Your task to perform on an android device: open app "Chime – Mobile Banking" Image 0: 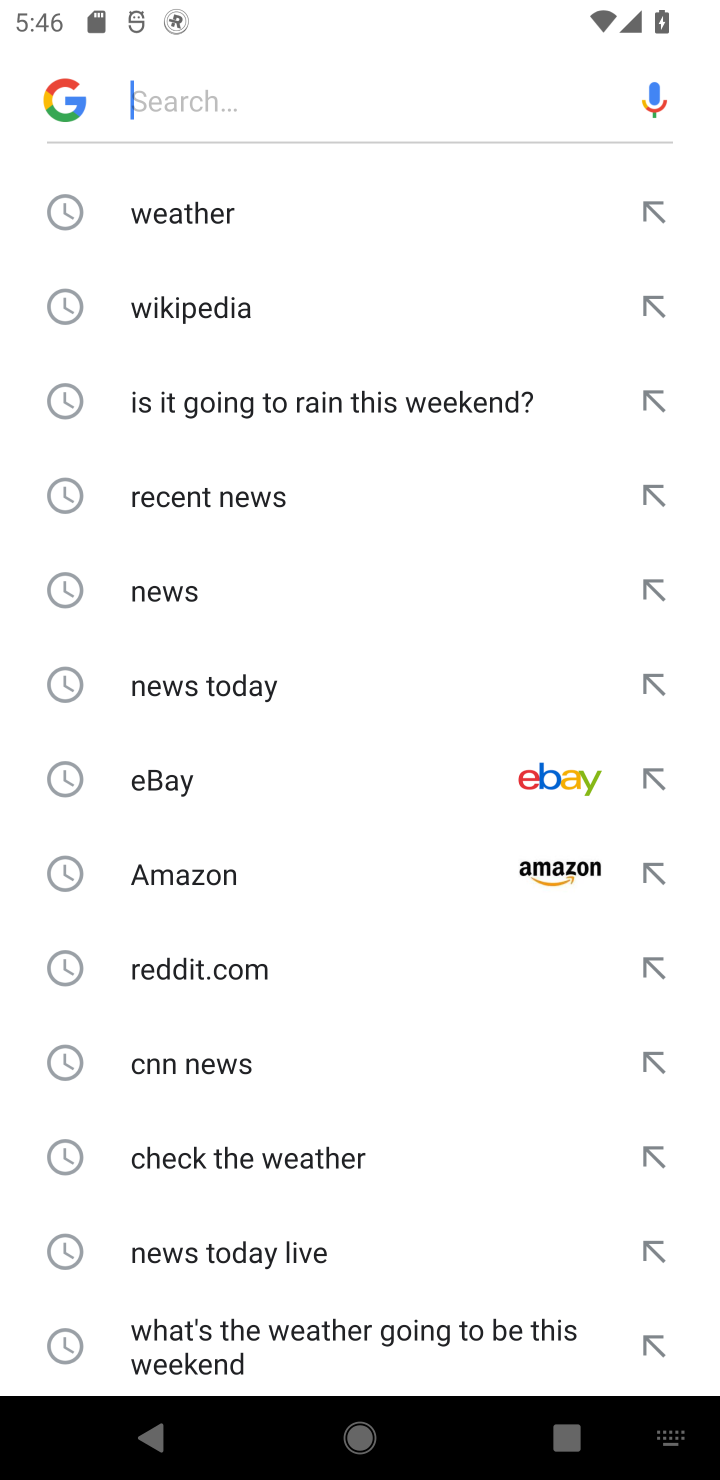
Step 0: press home button
Your task to perform on an android device: open app "Chime – Mobile Banking" Image 1: 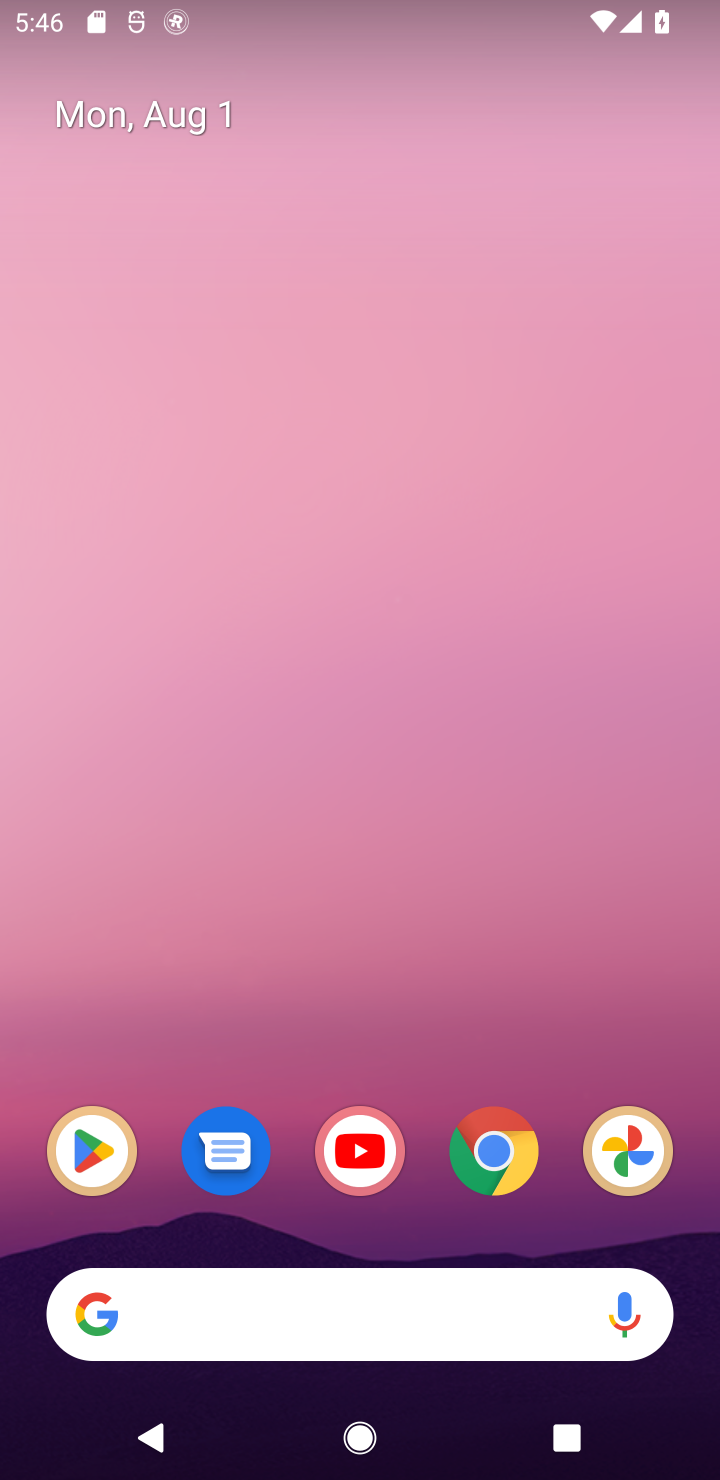
Step 1: click (84, 1176)
Your task to perform on an android device: open app "Chime – Mobile Banking" Image 2: 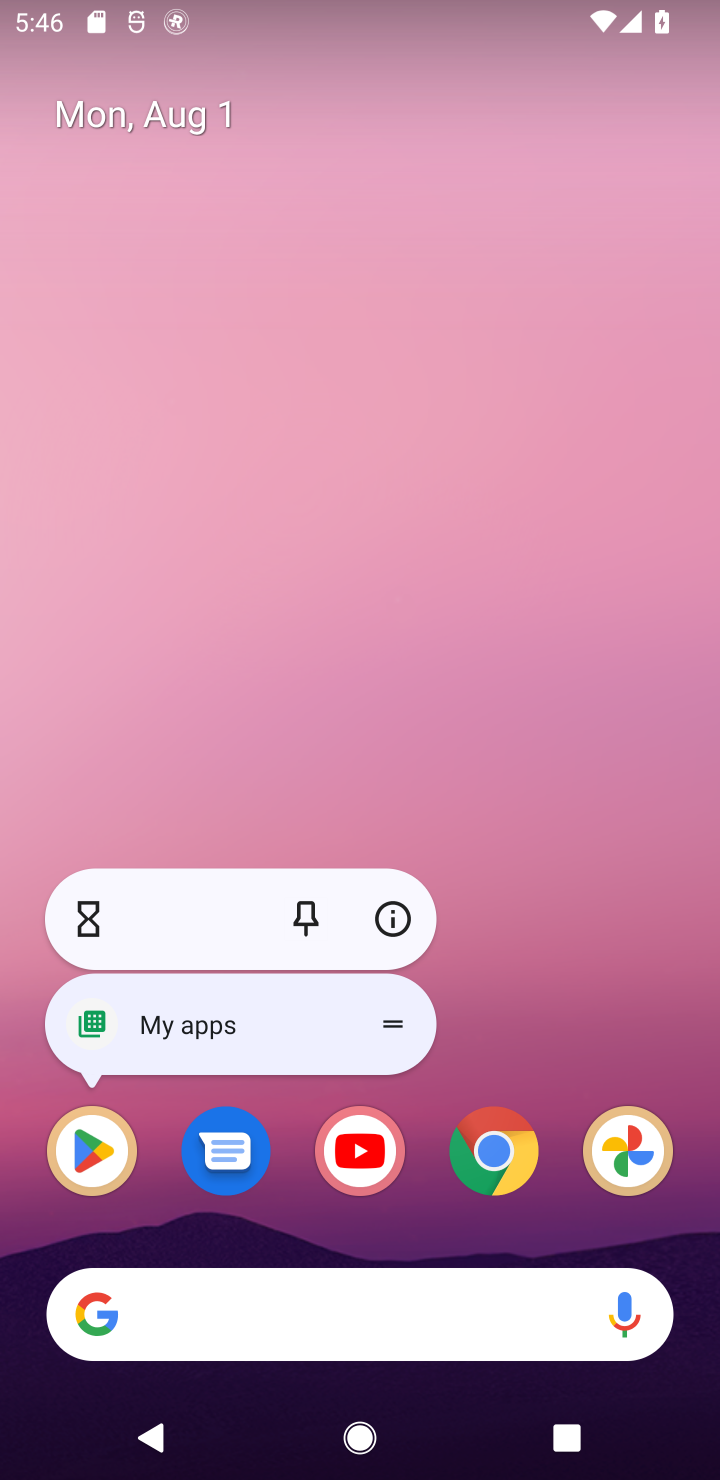
Step 2: click (84, 1176)
Your task to perform on an android device: open app "Chime – Mobile Banking" Image 3: 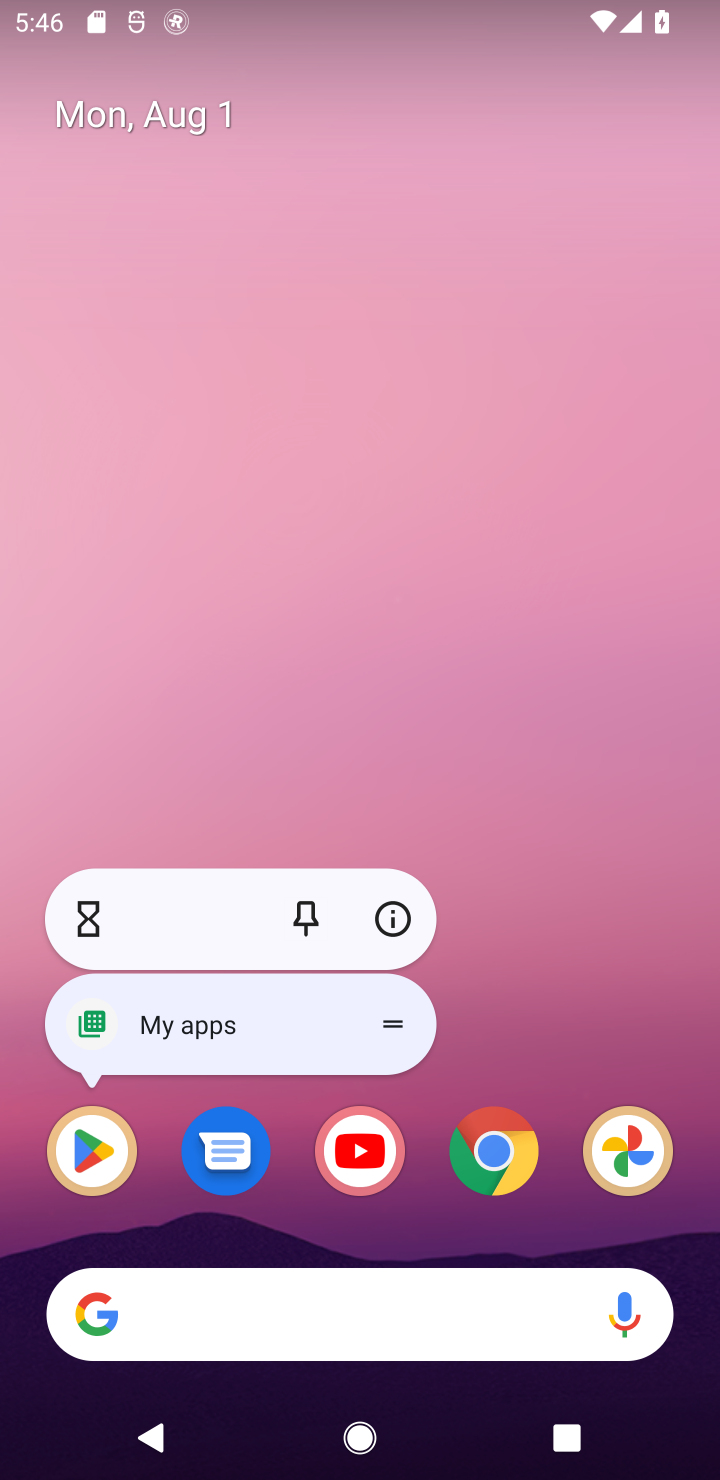
Step 3: click (84, 1176)
Your task to perform on an android device: open app "Chime – Mobile Banking" Image 4: 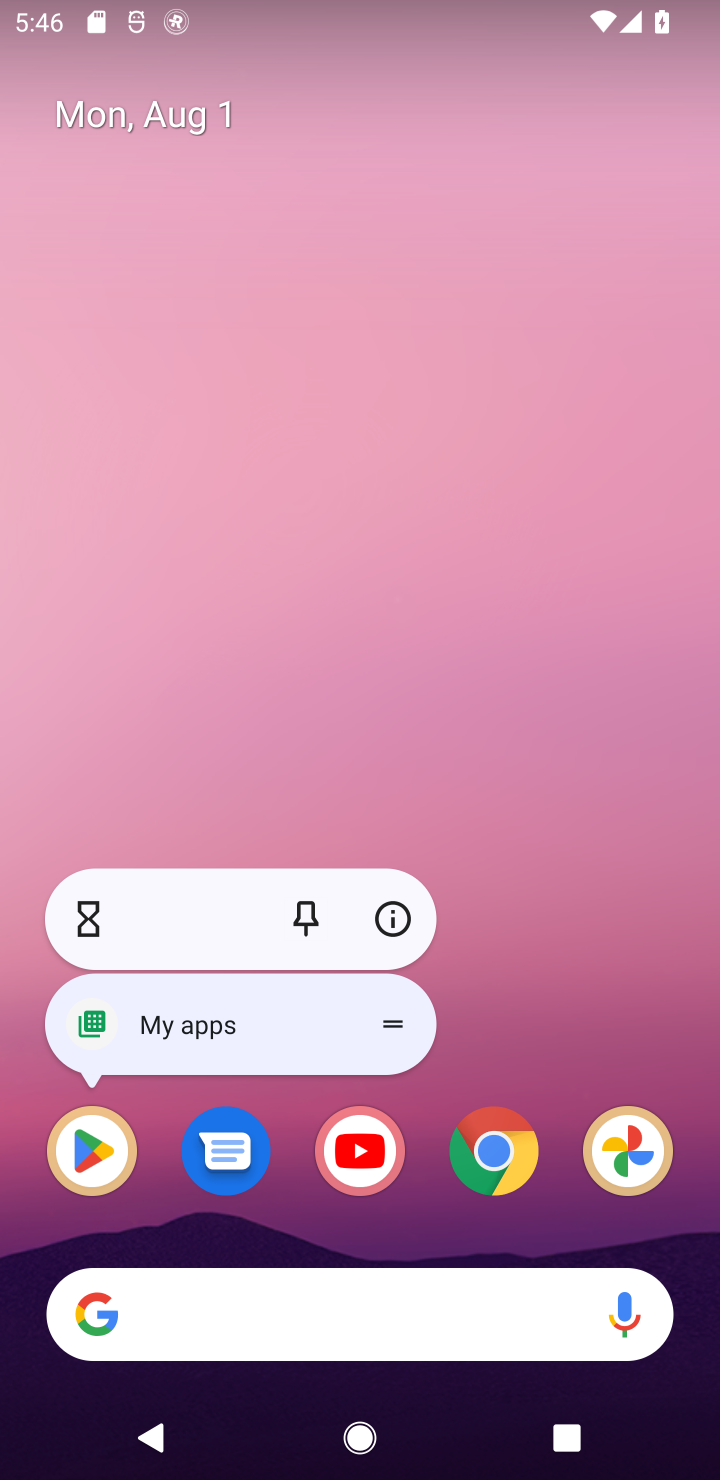
Step 4: click (84, 1176)
Your task to perform on an android device: open app "Chime – Mobile Banking" Image 5: 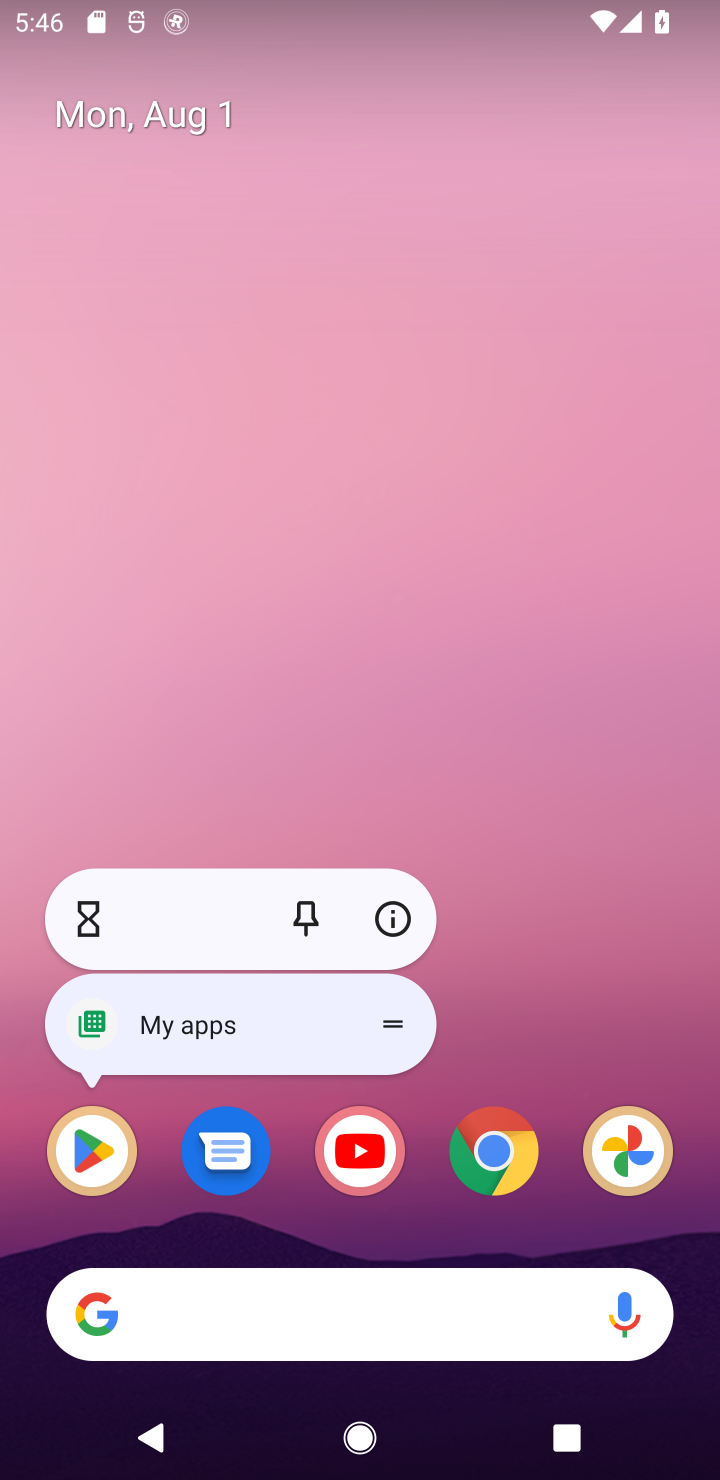
Step 5: click (97, 1139)
Your task to perform on an android device: open app "Chime – Mobile Banking" Image 6: 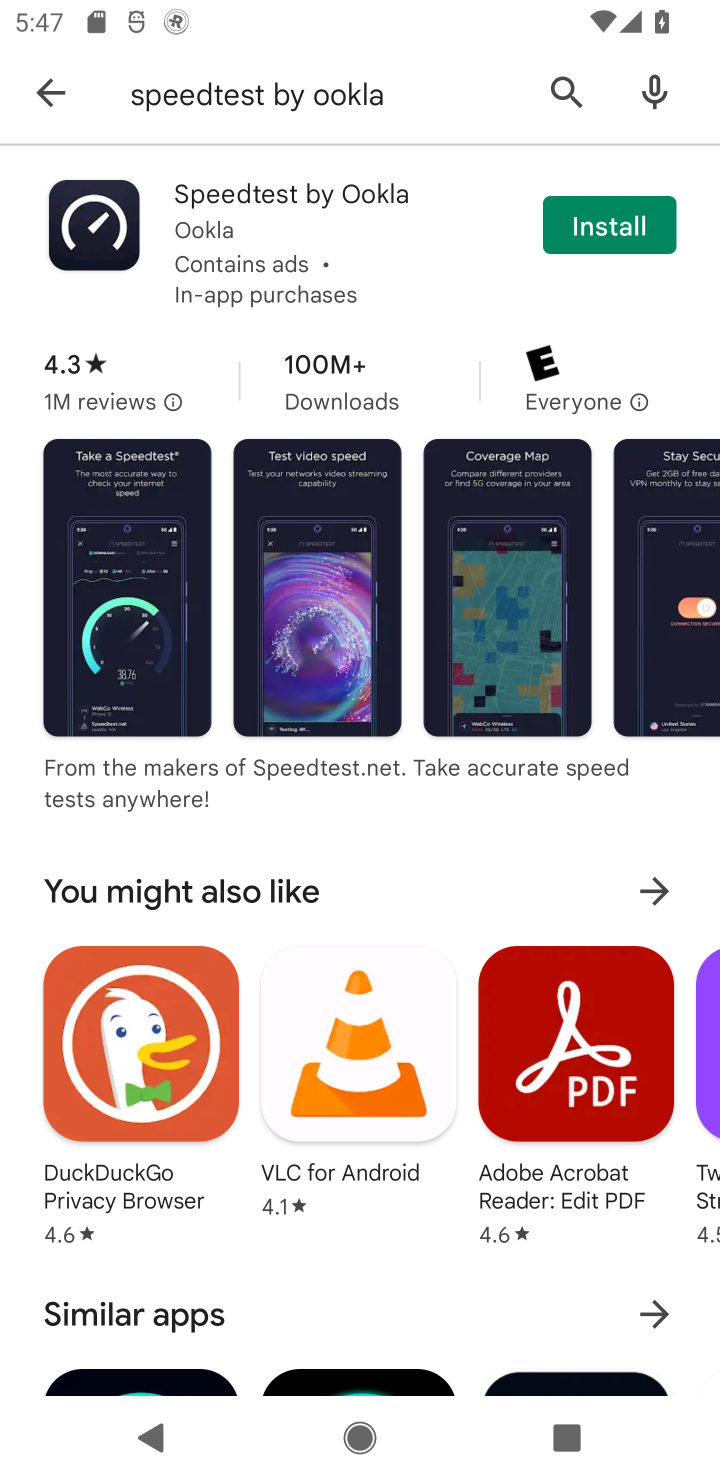
Step 6: click (561, 87)
Your task to perform on an android device: open app "Chime – Mobile Banking" Image 7: 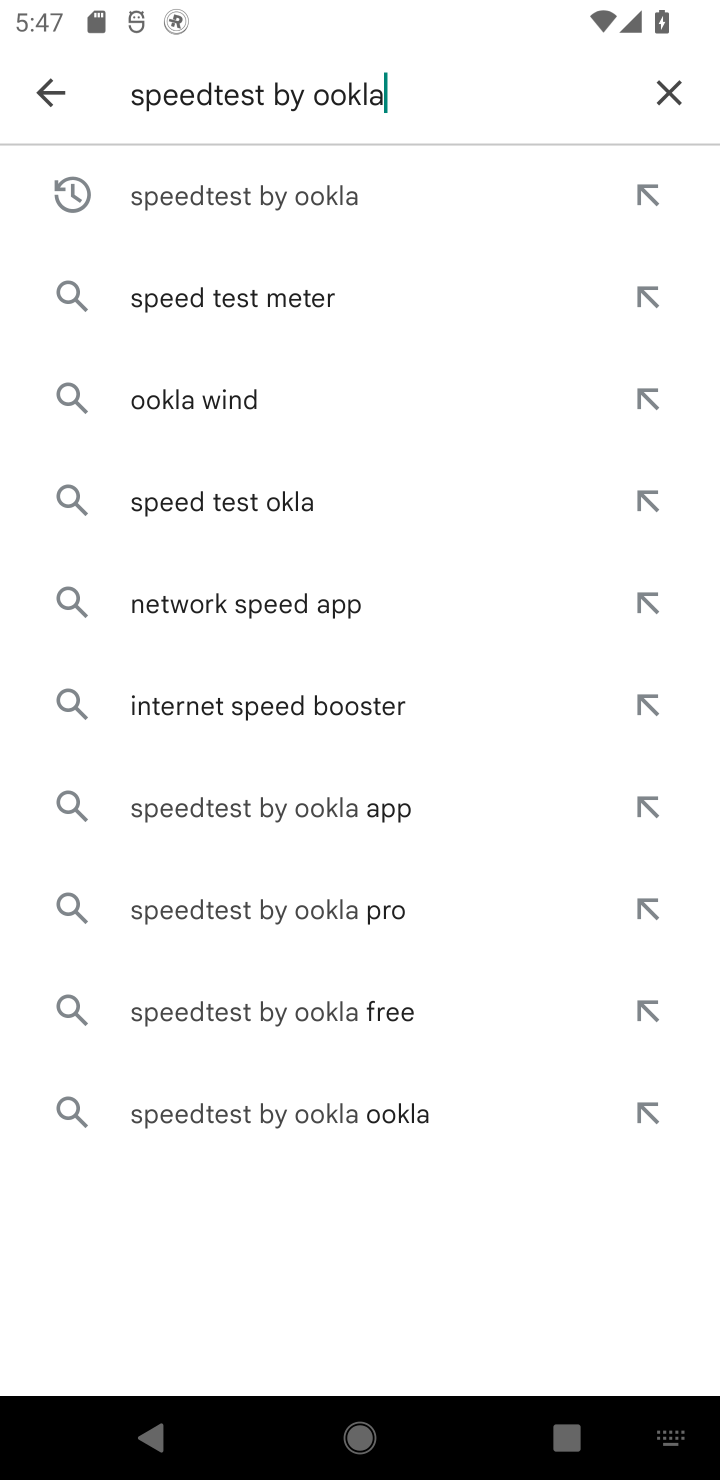
Step 7: click (658, 106)
Your task to perform on an android device: open app "Chime – Mobile Banking" Image 8: 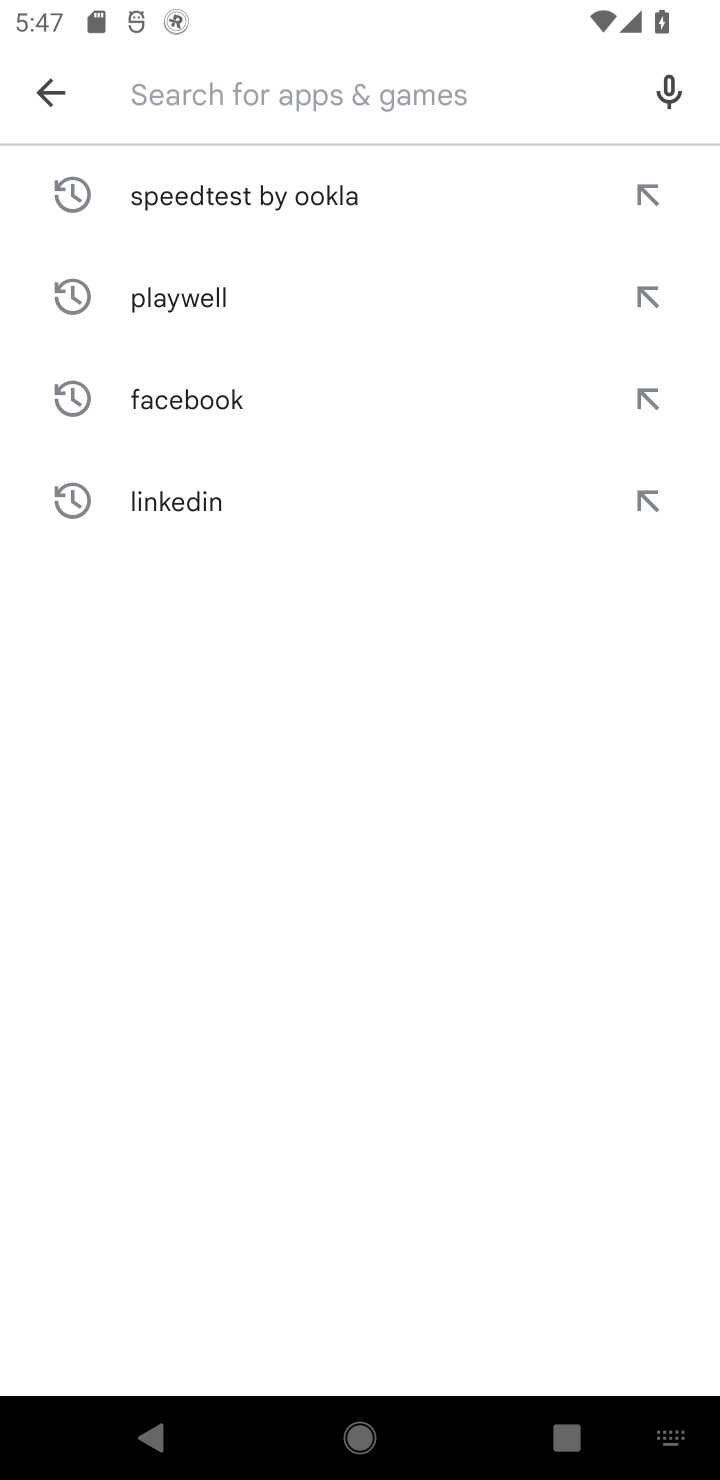
Step 8: type "Chime – Mobile Banking"
Your task to perform on an android device: open app "Chime – Mobile Banking" Image 9: 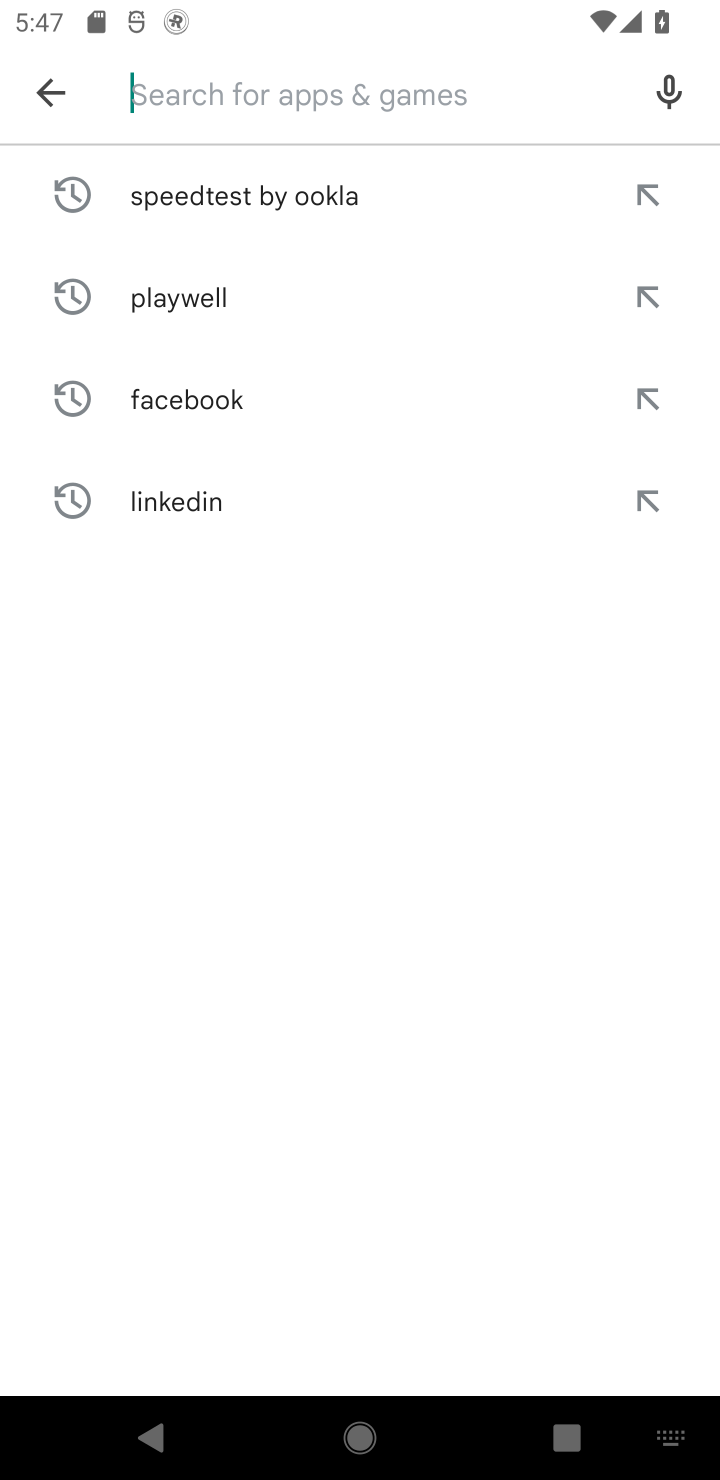
Step 9: type "Chime – Mobile Banking"
Your task to perform on an android device: open app "Chime – Mobile Banking" Image 10: 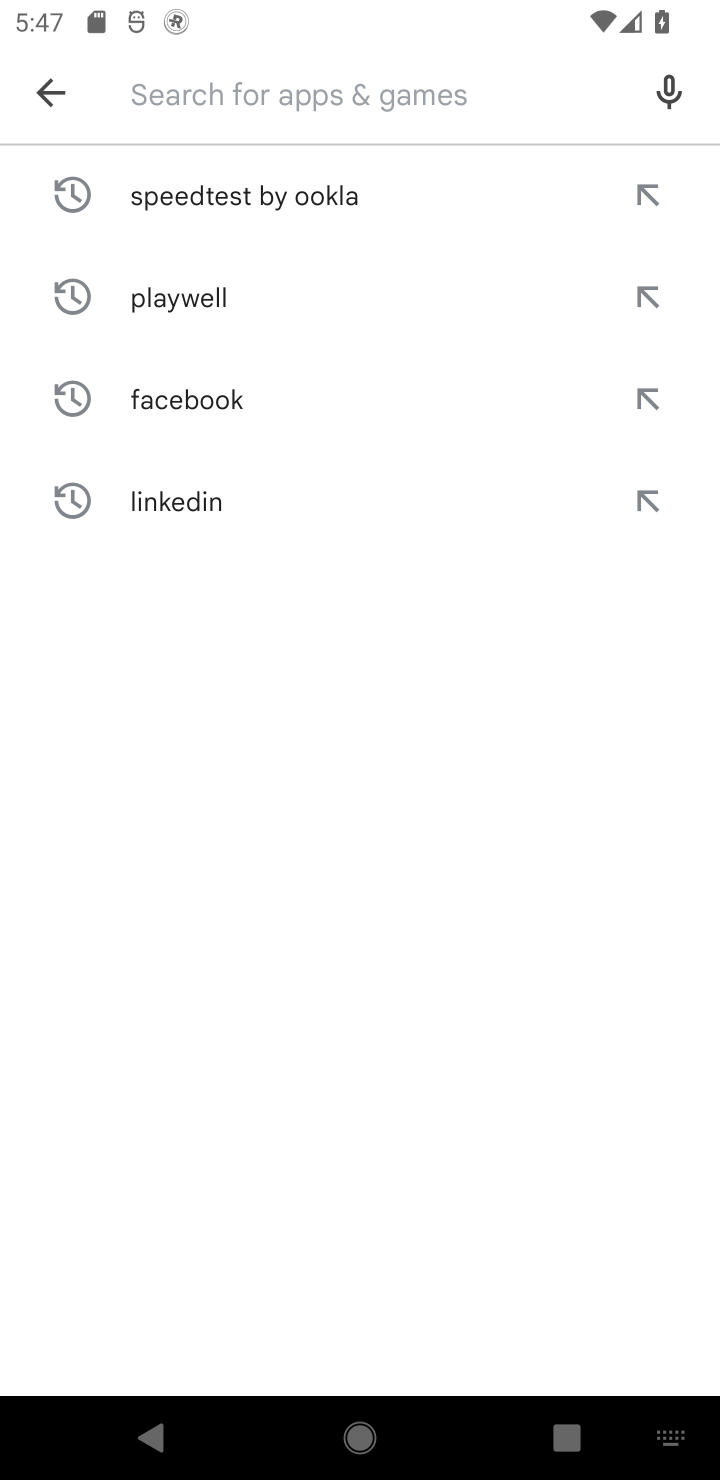
Step 10: type "Chime Mobile Banking"
Your task to perform on an android device: open app "Chime – Mobile Banking" Image 11: 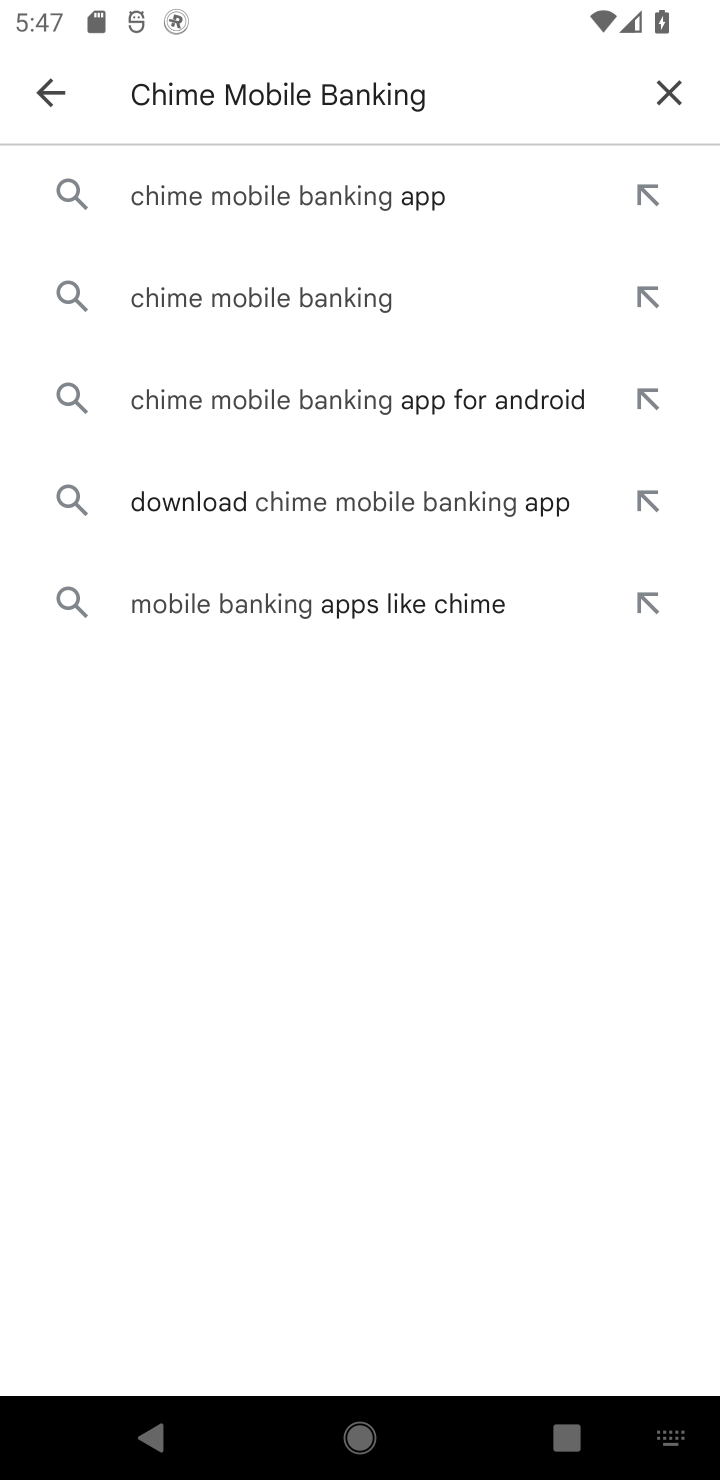
Step 11: click (271, 198)
Your task to perform on an android device: open app "Chime – Mobile Banking" Image 12: 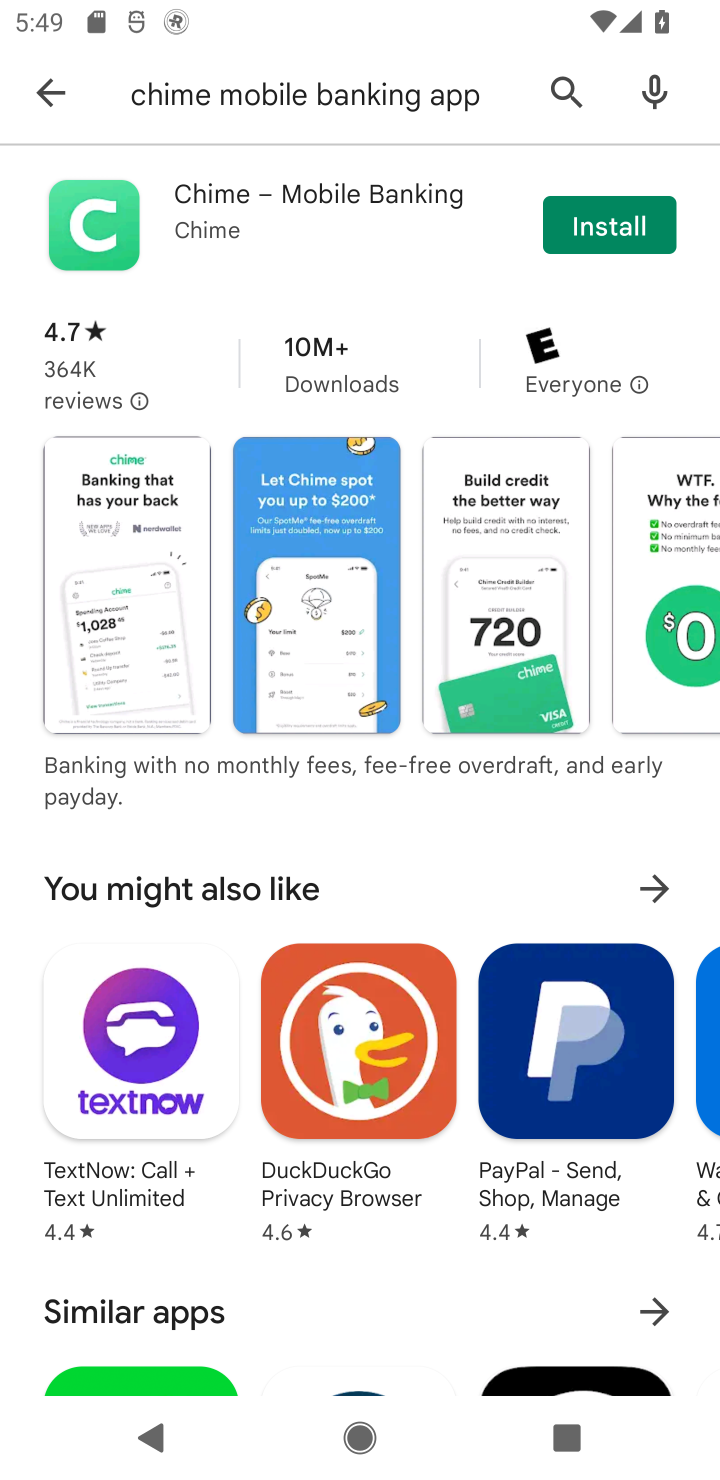
Step 12: task complete